Your task to perform on an android device: Open Google Image 0: 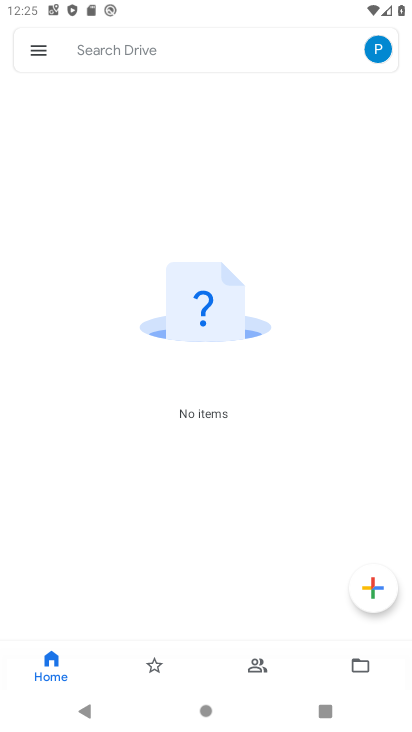
Step 0: press home button
Your task to perform on an android device: Open Google Image 1: 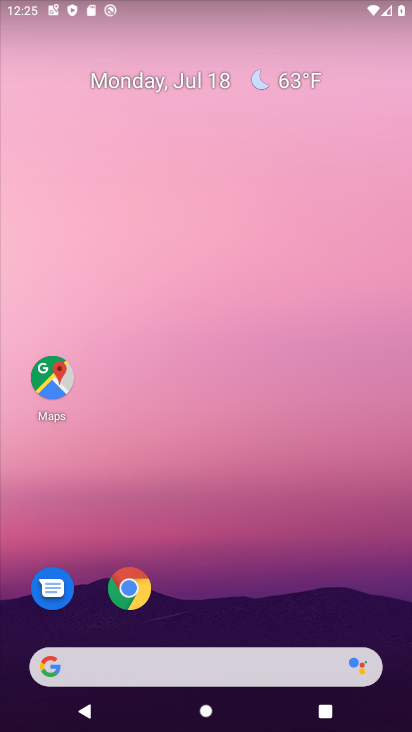
Step 1: drag from (223, 451) to (223, 156)
Your task to perform on an android device: Open Google Image 2: 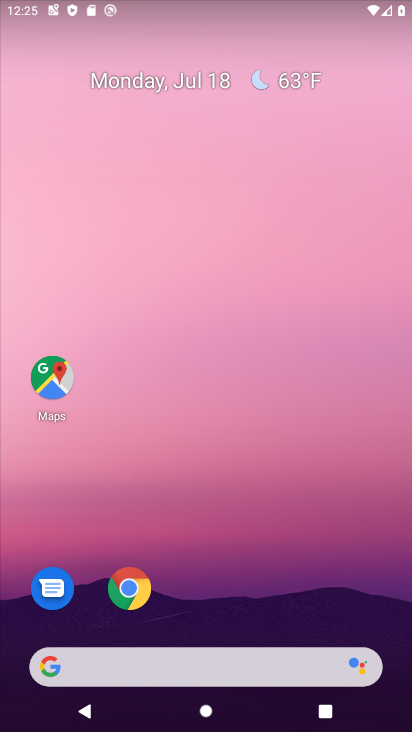
Step 2: drag from (233, 686) to (195, 66)
Your task to perform on an android device: Open Google Image 3: 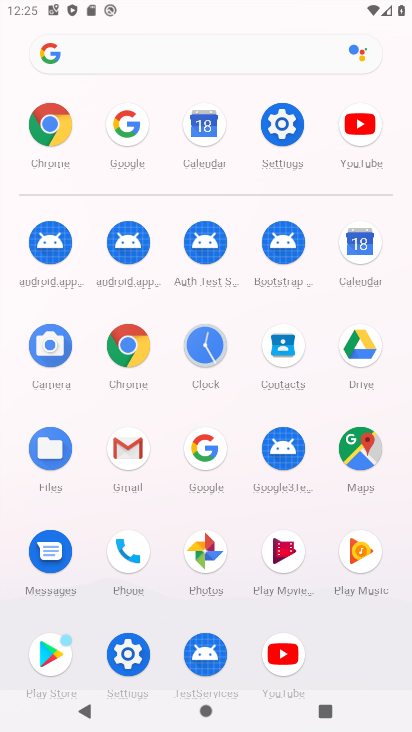
Step 3: click (206, 443)
Your task to perform on an android device: Open Google Image 4: 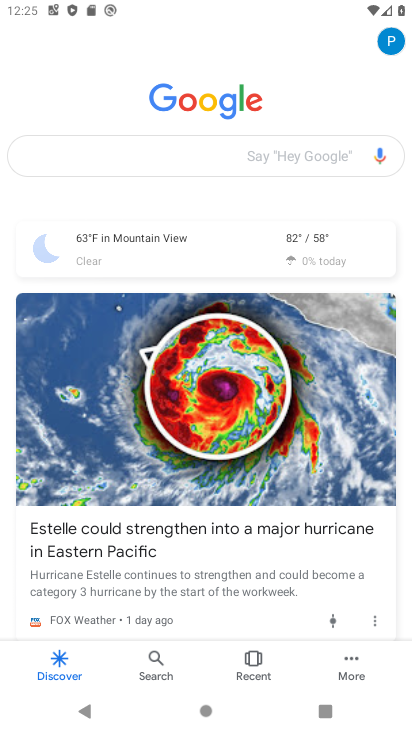
Step 4: task complete